Your task to perform on an android device: Clear the shopping cart on amazon.com. Add "dell alienware" to the cart on amazon.com, then select checkout. Image 0: 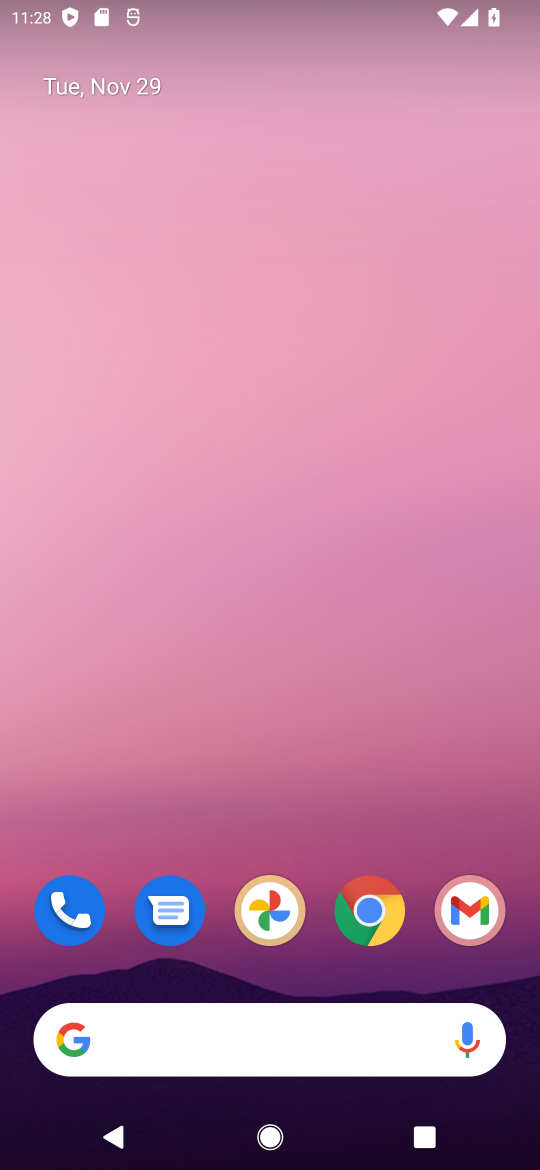
Step 0: click (379, 921)
Your task to perform on an android device: Clear the shopping cart on amazon.com. Add "dell alienware" to the cart on amazon.com, then select checkout. Image 1: 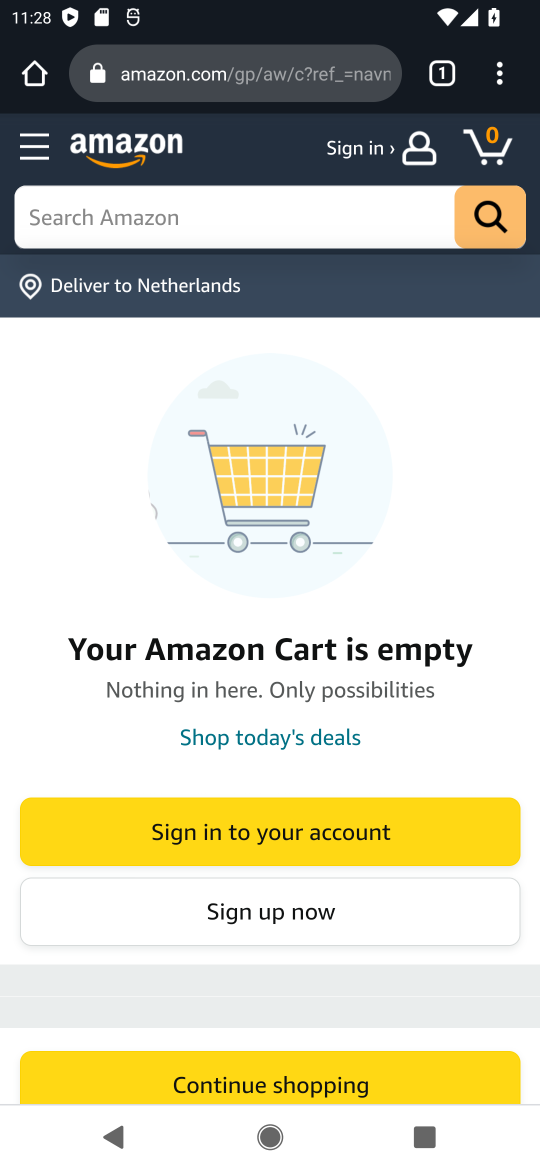
Step 1: click (134, 227)
Your task to perform on an android device: Clear the shopping cart on amazon.com. Add "dell alienware" to the cart on amazon.com, then select checkout. Image 2: 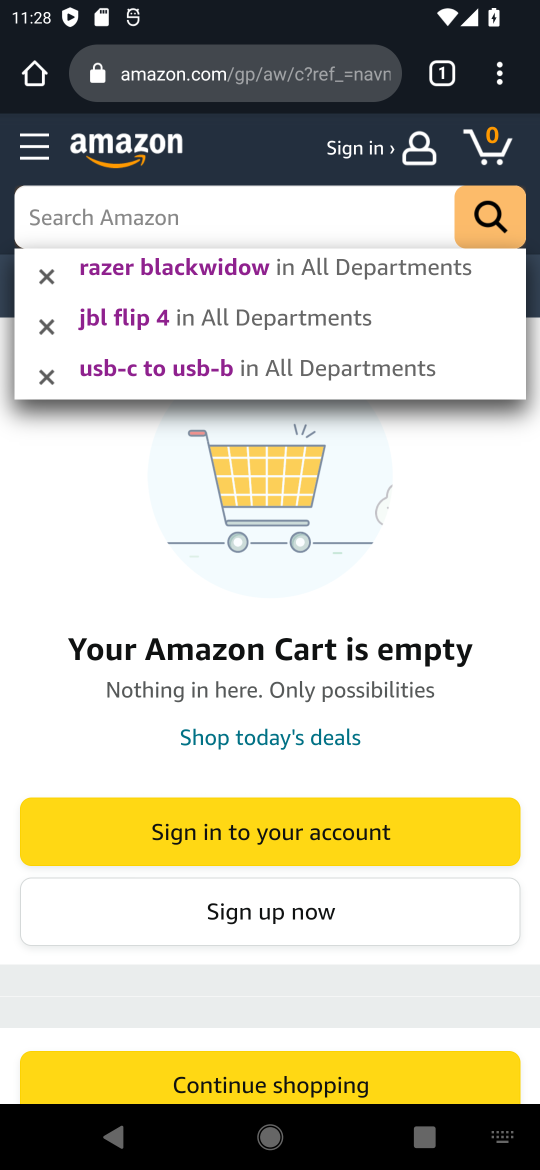
Step 2: type "dell alienware"
Your task to perform on an android device: Clear the shopping cart on amazon.com. Add "dell alienware" to the cart on amazon.com, then select checkout. Image 3: 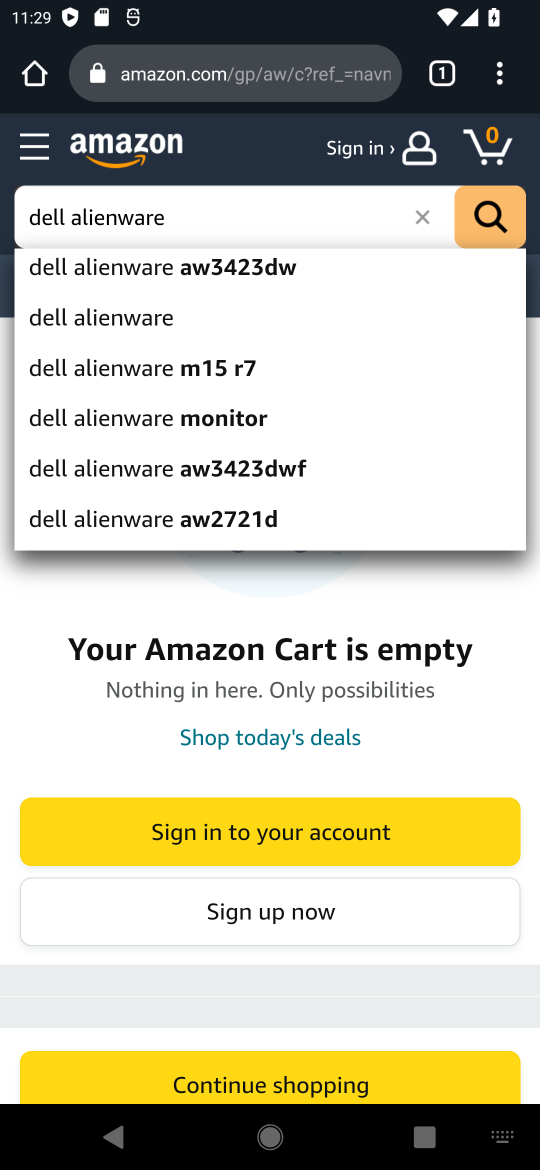
Step 3: click (143, 312)
Your task to perform on an android device: Clear the shopping cart on amazon.com. Add "dell alienware" to the cart on amazon.com, then select checkout. Image 4: 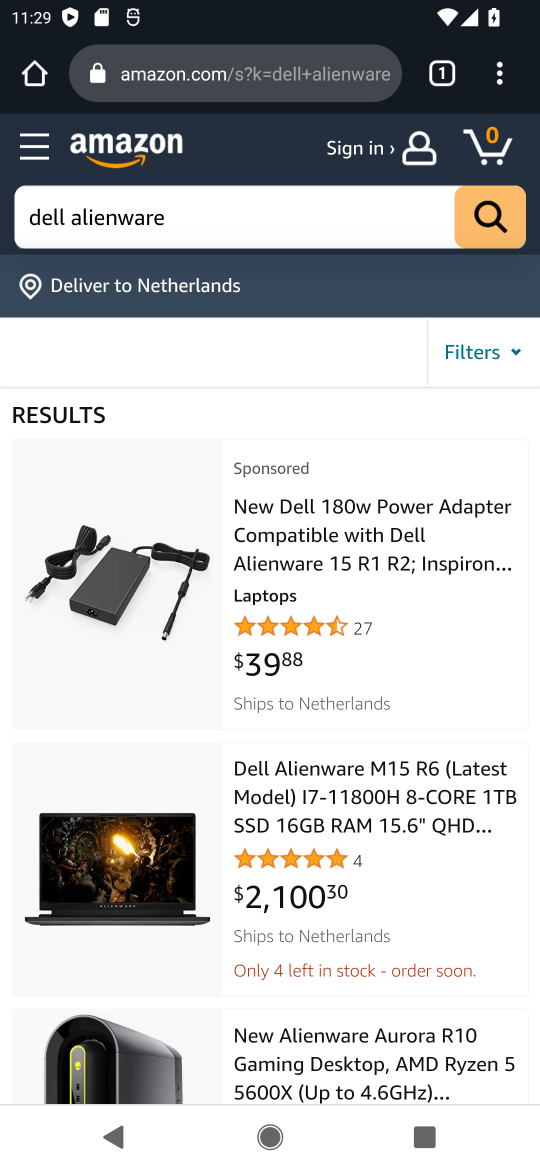
Step 4: click (276, 796)
Your task to perform on an android device: Clear the shopping cart on amazon.com. Add "dell alienware" to the cart on amazon.com, then select checkout. Image 5: 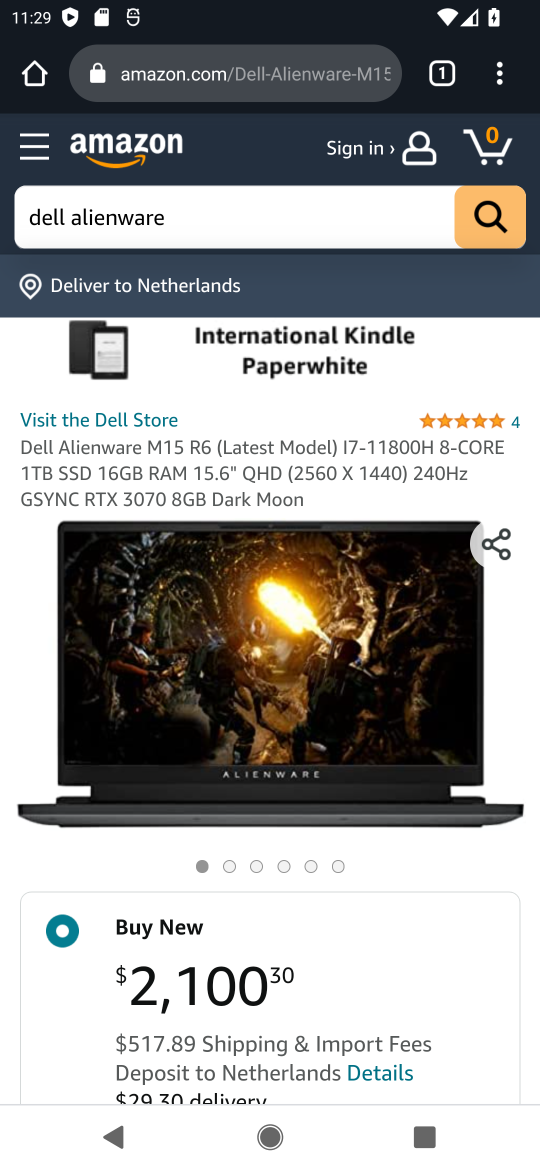
Step 5: drag from (311, 892) to (274, 528)
Your task to perform on an android device: Clear the shopping cart on amazon.com. Add "dell alienware" to the cart on amazon.com, then select checkout. Image 6: 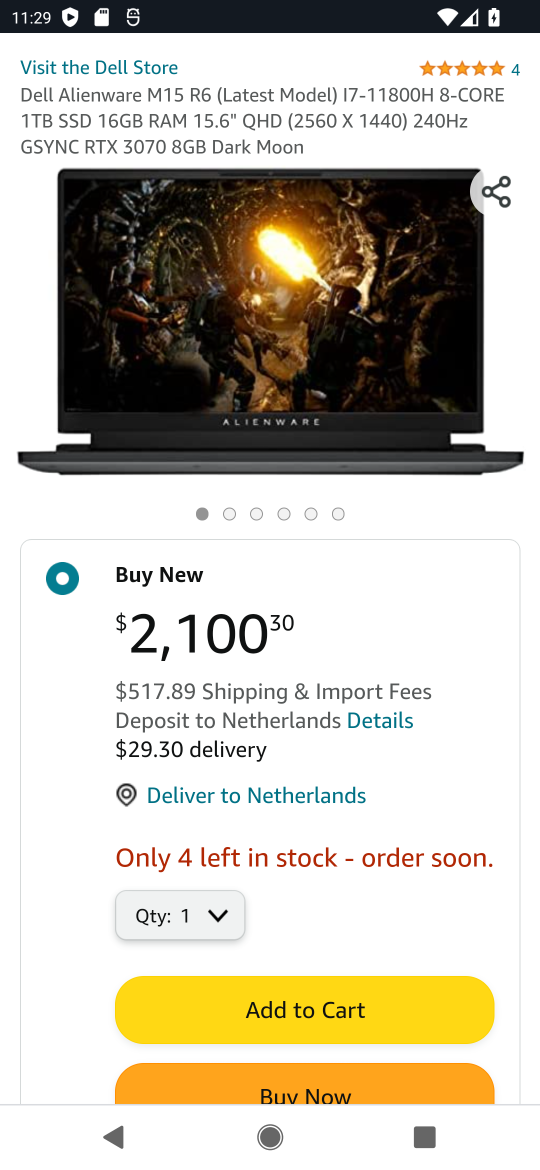
Step 6: drag from (288, 931) to (288, 612)
Your task to perform on an android device: Clear the shopping cart on amazon.com. Add "dell alienware" to the cart on amazon.com, then select checkout. Image 7: 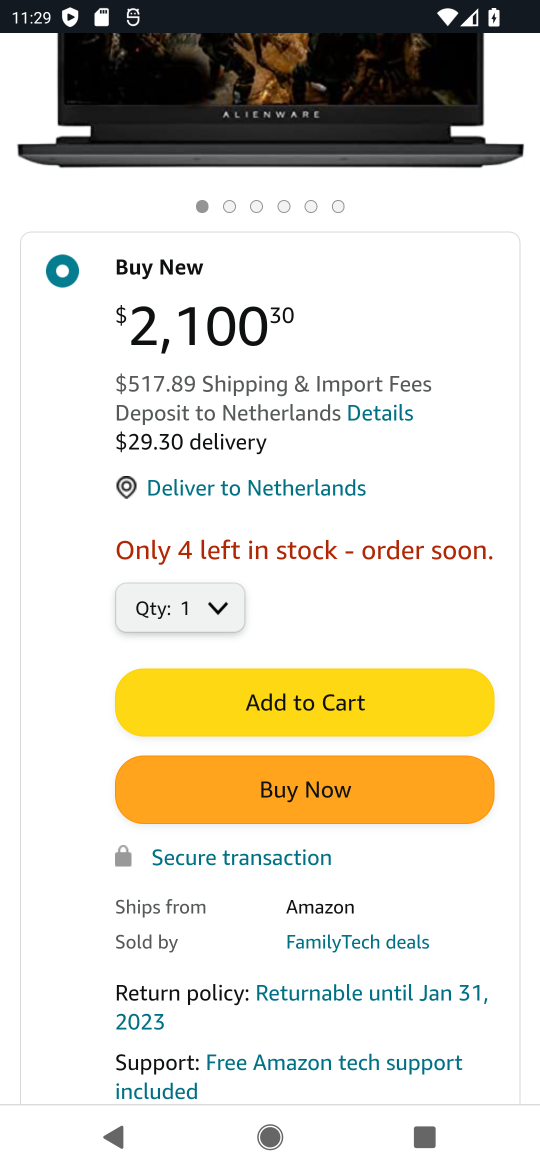
Step 7: click (296, 703)
Your task to perform on an android device: Clear the shopping cart on amazon.com. Add "dell alienware" to the cart on amazon.com, then select checkout. Image 8: 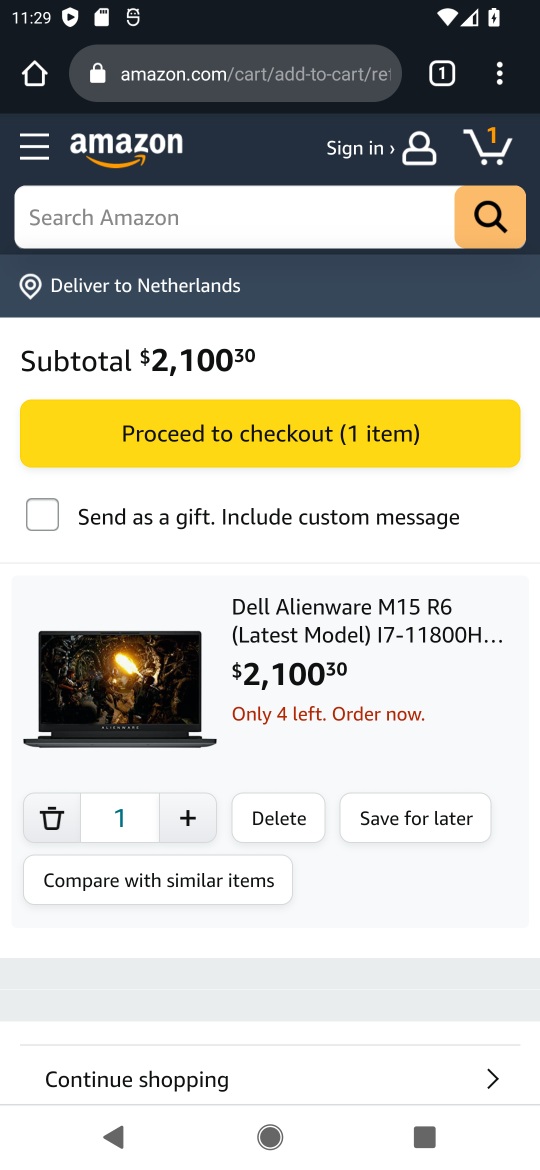
Step 8: click (250, 427)
Your task to perform on an android device: Clear the shopping cart on amazon.com. Add "dell alienware" to the cart on amazon.com, then select checkout. Image 9: 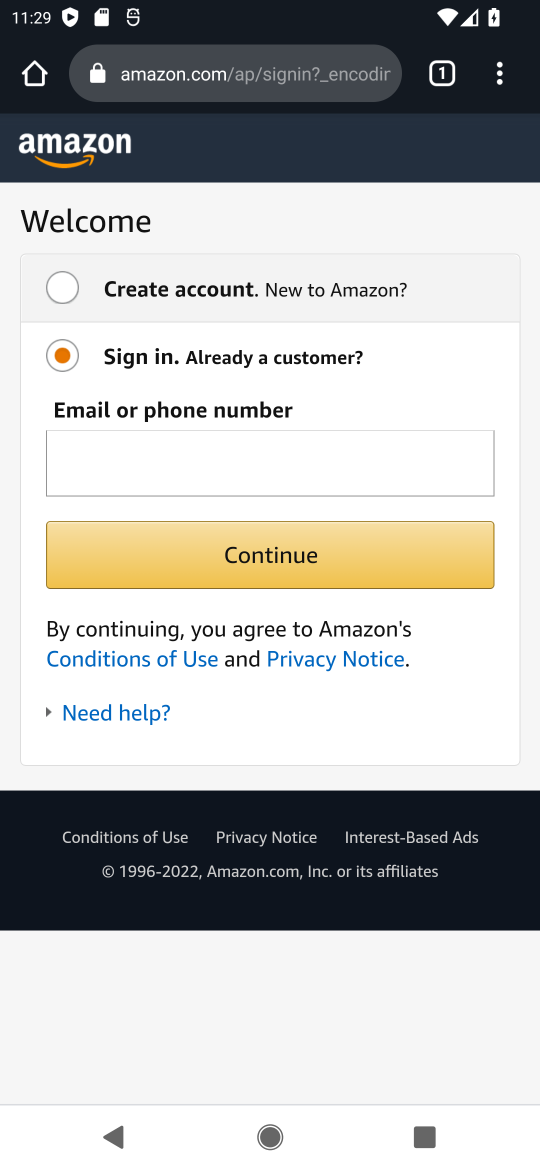
Step 9: task complete